Your task to perform on an android device: turn off javascript in the chrome app Image 0: 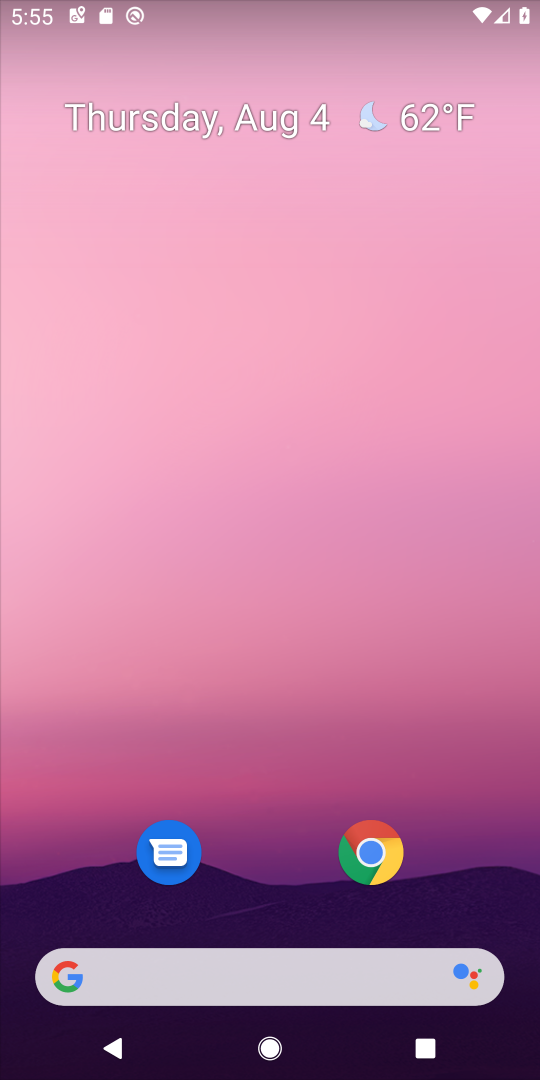
Step 0: click (371, 851)
Your task to perform on an android device: turn off javascript in the chrome app Image 1: 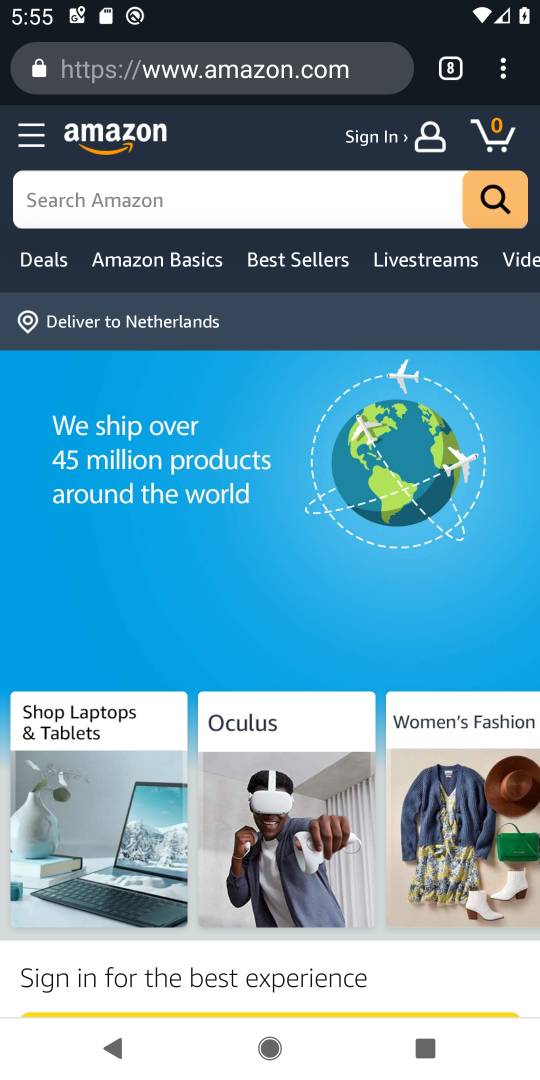
Step 1: click (502, 82)
Your task to perform on an android device: turn off javascript in the chrome app Image 2: 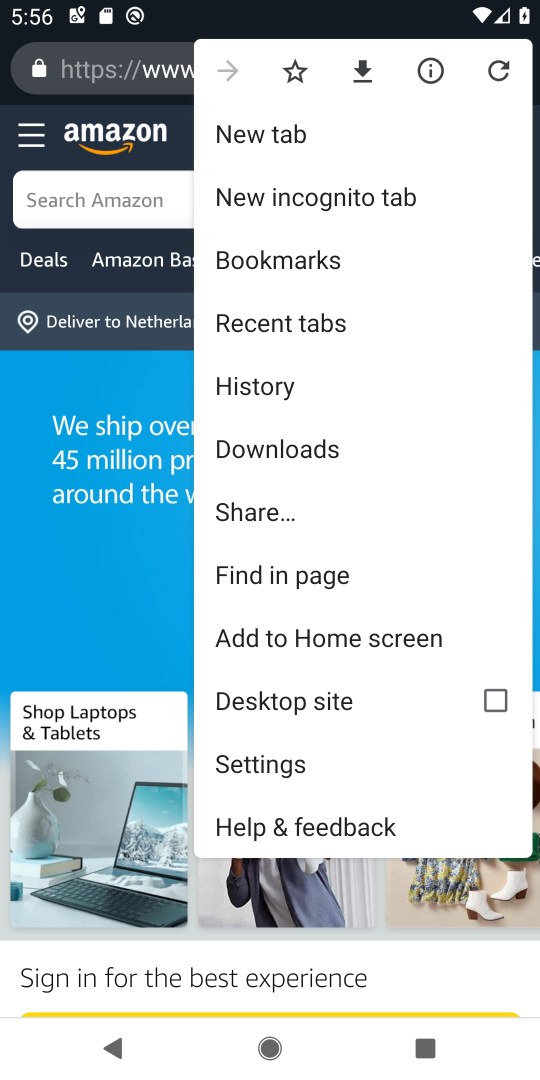
Step 2: click (266, 764)
Your task to perform on an android device: turn off javascript in the chrome app Image 3: 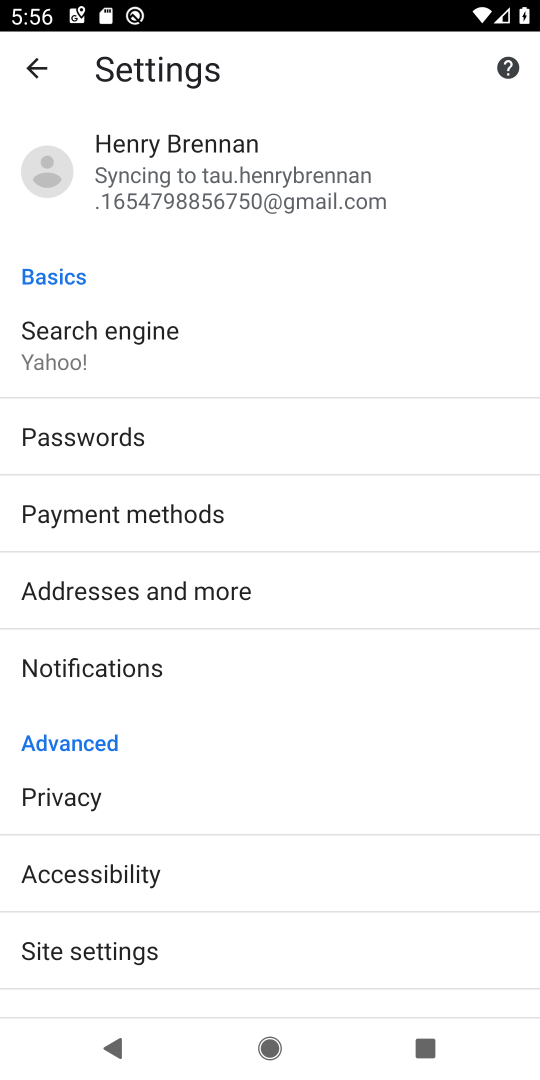
Step 3: click (95, 950)
Your task to perform on an android device: turn off javascript in the chrome app Image 4: 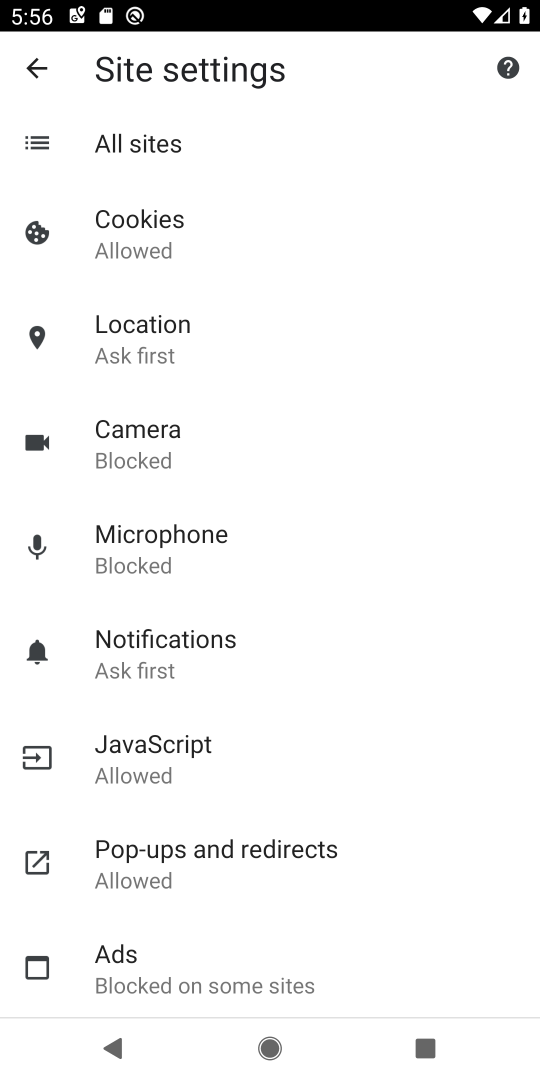
Step 4: click (123, 756)
Your task to perform on an android device: turn off javascript in the chrome app Image 5: 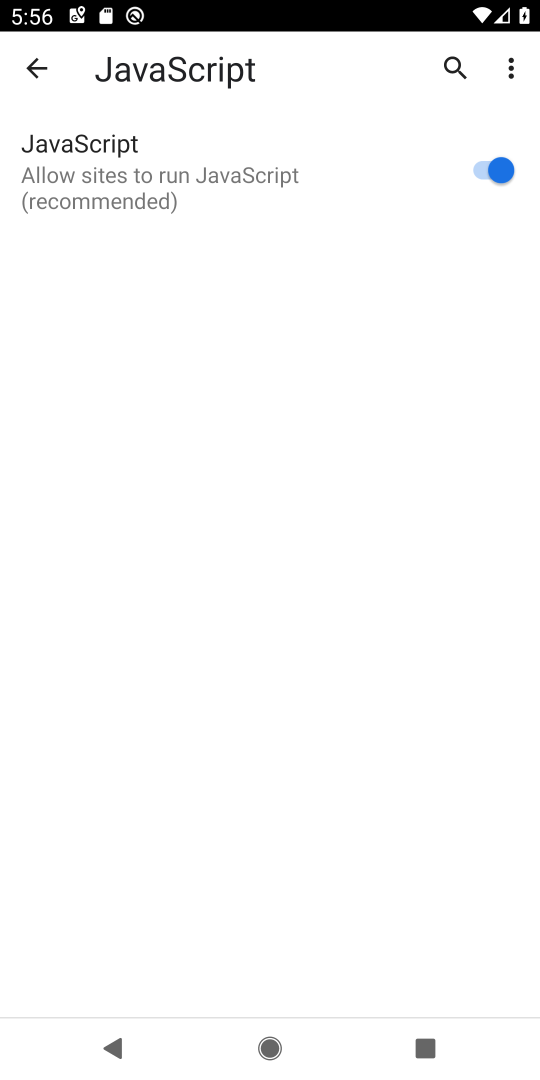
Step 5: click (495, 181)
Your task to perform on an android device: turn off javascript in the chrome app Image 6: 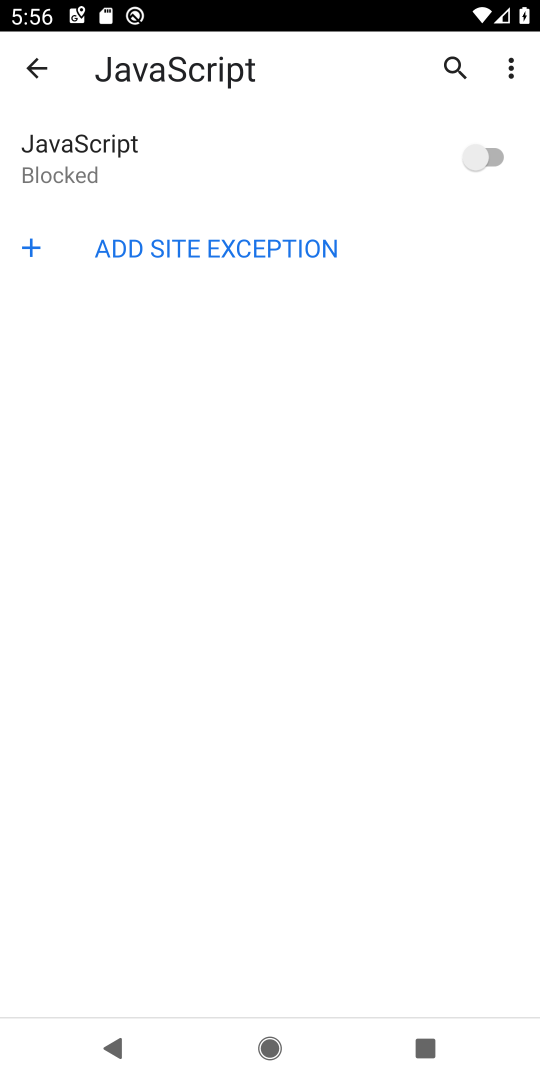
Step 6: task complete